Your task to perform on an android device: change text size in settings app Image 0: 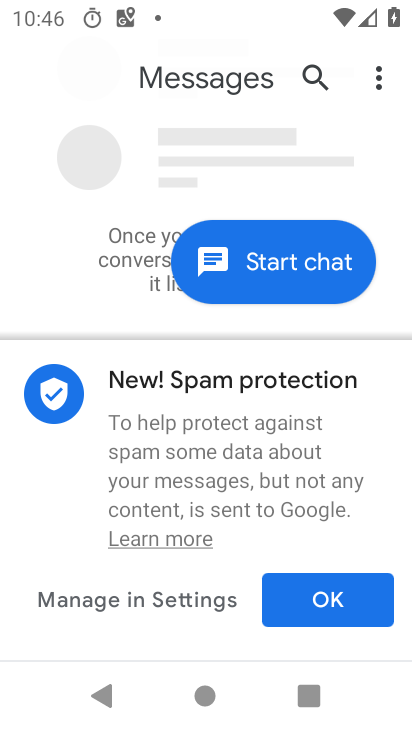
Step 0: press home button
Your task to perform on an android device: change text size in settings app Image 1: 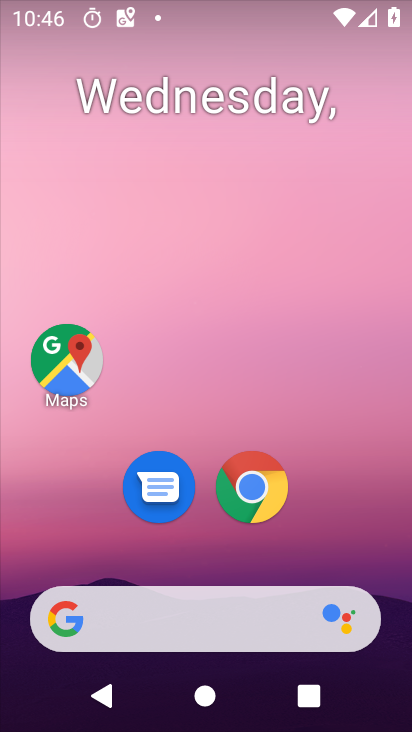
Step 1: drag from (279, 180) to (276, 142)
Your task to perform on an android device: change text size in settings app Image 2: 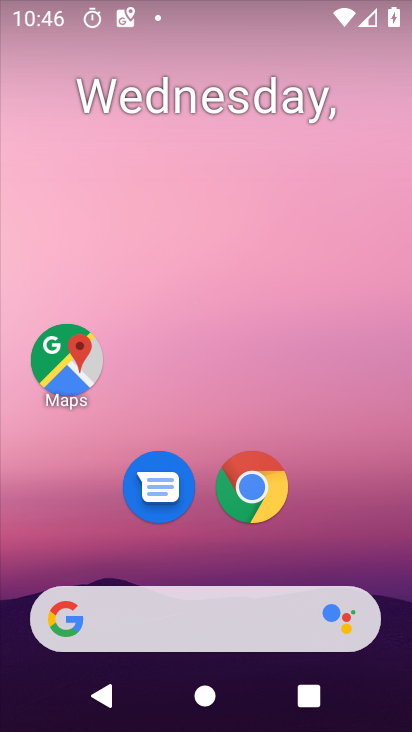
Step 2: drag from (265, 591) to (285, 65)
Your task to perform on an android device: change text size in settings app Image 3: 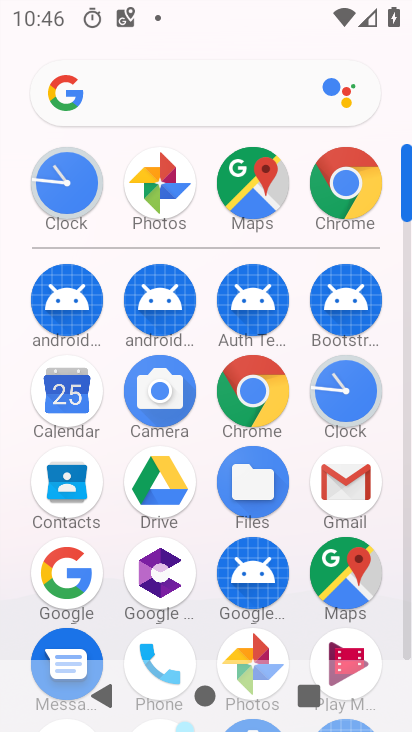
Step 3: drag from (296, 560) to (325, 272)
Your task to perform on an android device: change text size in settings app Image 4: 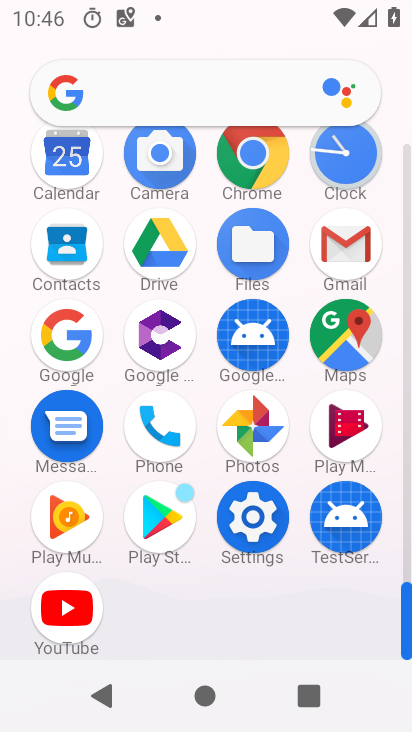
Step 4: click (234, 520)
Your task to perform on an android device: change text size in settings app Image 5: 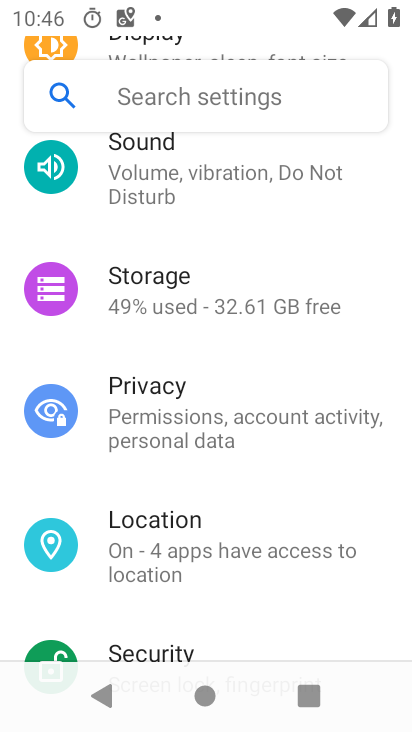
Step 5: drag from (213, 566) to (252, 163)
Your task to perform on an android device: change text size in settings app Image 6: 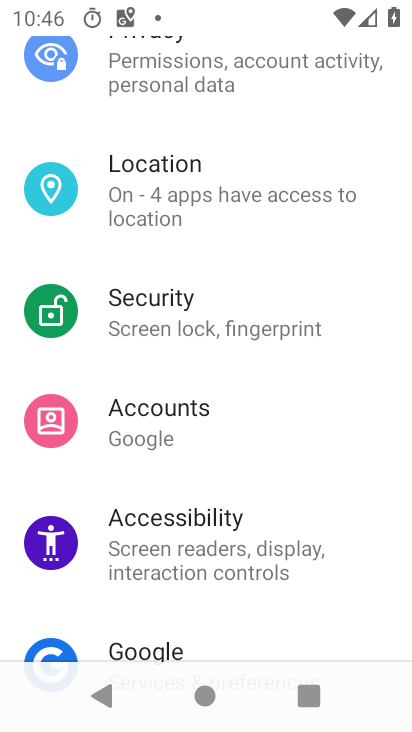
Step 6: click (246, 560)
Your task to perform on an android device: change text size in settings app Image 7: 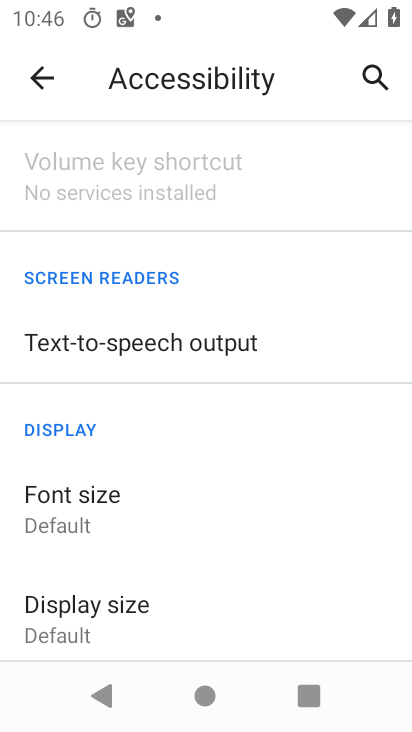
Step 7: click (111, 513)
Your task to perform on an android device: change text size in settings app Image 8: 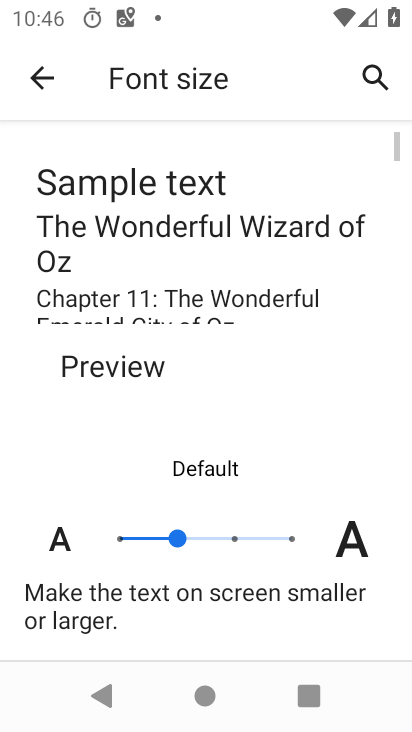
Step 8: click (144, 533)
Your task to perform on an android device: change text size in settings app Image 9: 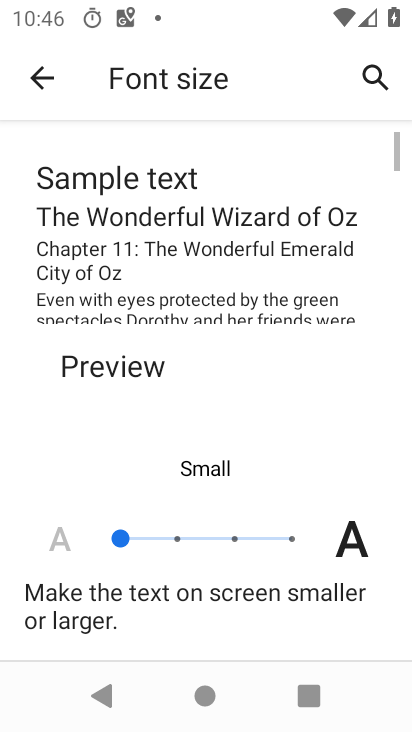
Step 9: task complete